Your task to perform on an android device: open sync settings in chrome Image 0: 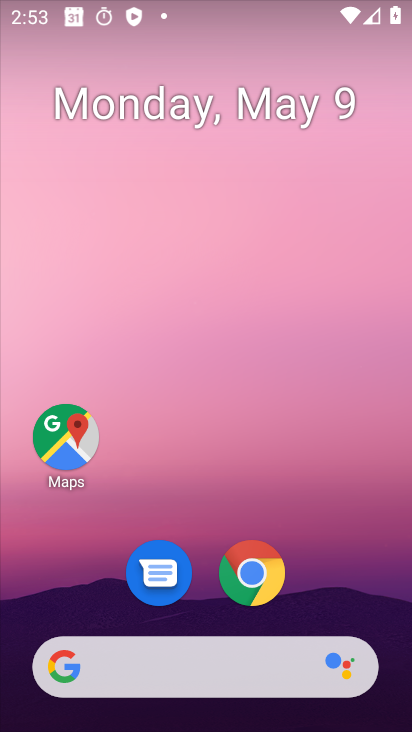
Step 0: drag from (374, 598) to (160, 5)
Your task to perform on an android device: open sync settings in chrome Image 1: 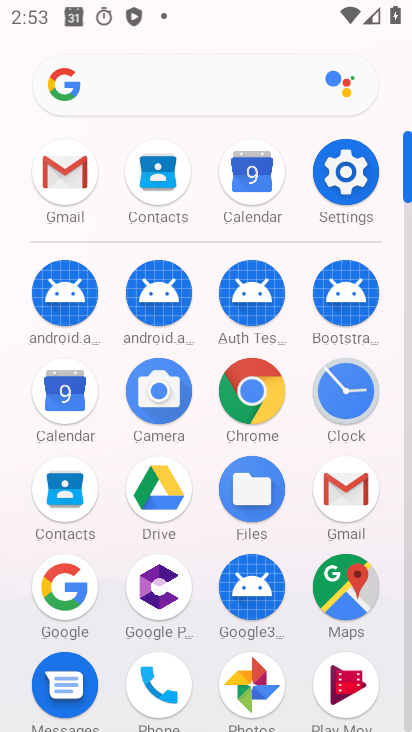
Step 1: click (255, 369)
Your task to perform on an android device: open sync settings in chrome Image 2: 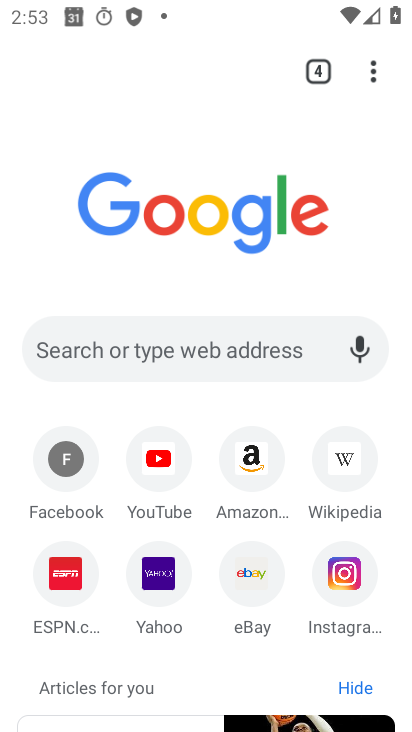
Step 2: click (362, 78)
Your task to perform on an android device: open sync settings in chrome Image 3: 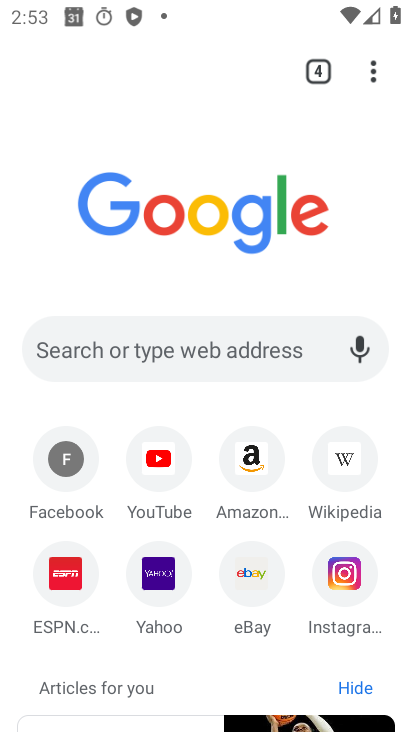
Step 3: click (371, 68)
Your task to perform on an android device: open sync settings in chrome Image 4: 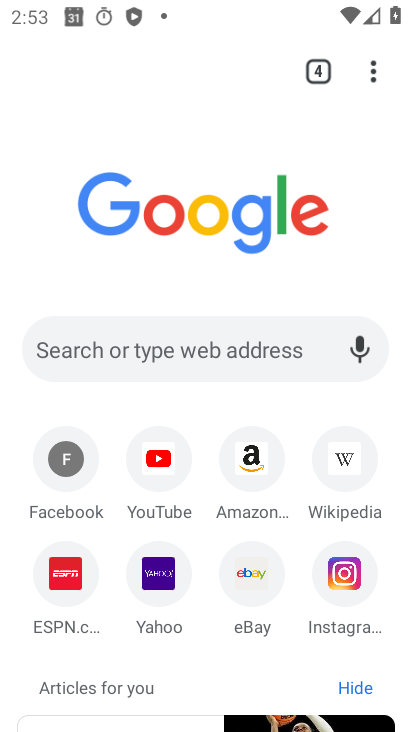
Step 4: click (366, 68)
Your task to perform on an android device: open sync settings in chrome Image 5: 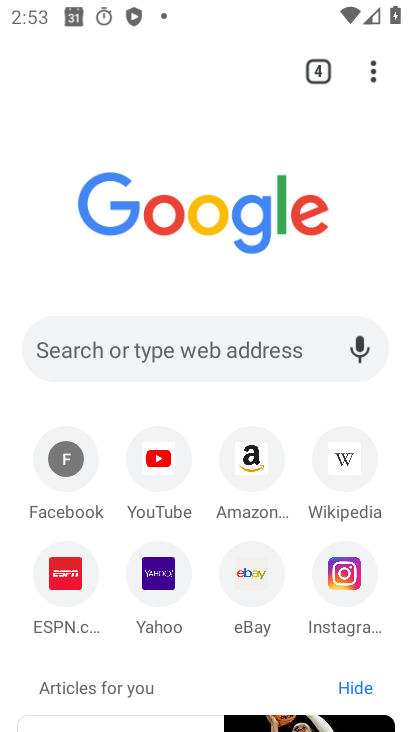
Step 5: drag from (369, 72) to (103, 591)
Your task to perform on an android device: open sync settings in chrome Image 6: 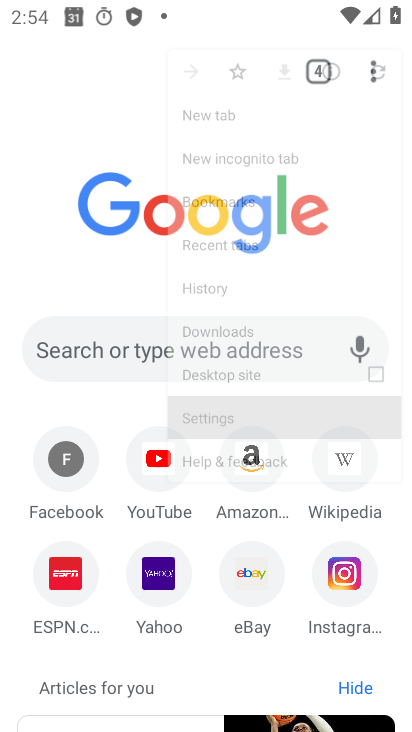
Step 6: click (103, 591)
Your task to perform on an android device: open sync settings in chrome Image 7: 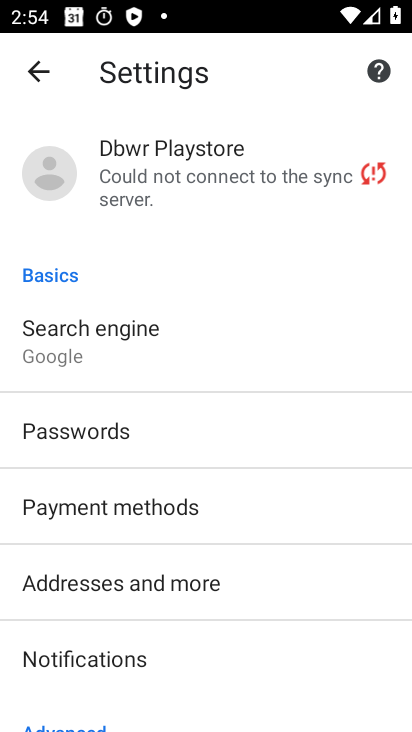
Step 7: drag from (164, 513) to (94, 171)
Your task to perform on an android device: open sync settings in chrome Image 8: 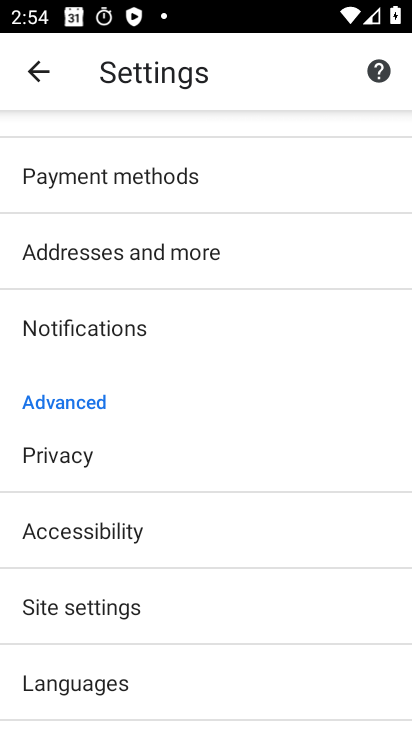
Step 8: click (66, 610)
Your task to perform on an android device: open sync settings in chrome Image 9: 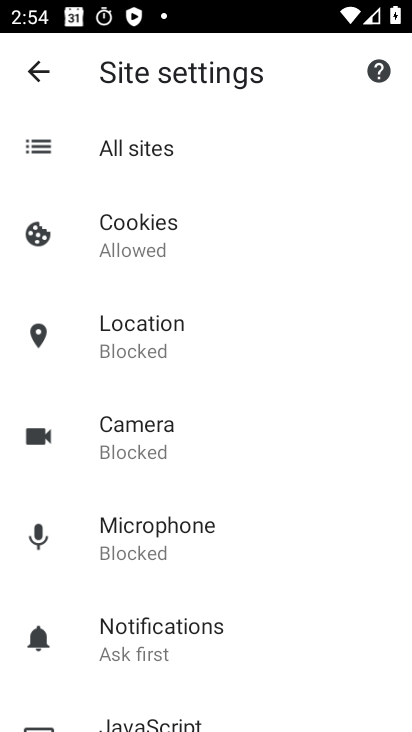
Step 9: drag from (207, 608) to (133, 156)
Your task to perform on an android device: open sync settings in chrome Image 10: 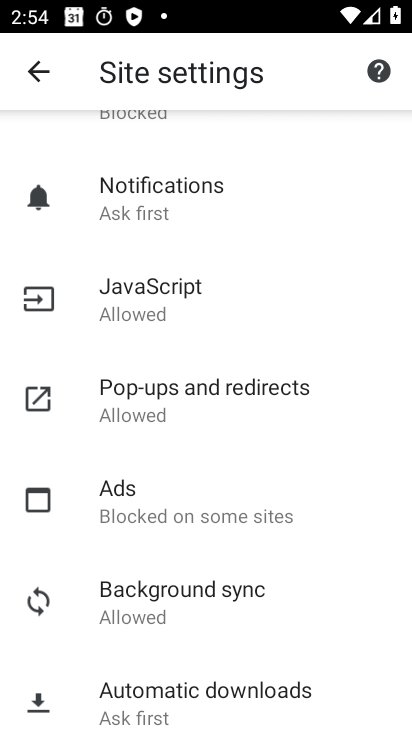
Step 10: click (145, 597)
Your task to perform on an android device: open sync settings in chrome Image 11: 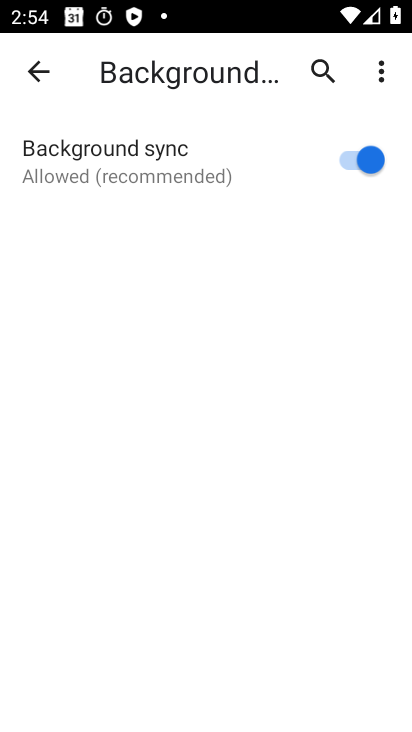
Step 11: task complete